Your task to perform on an android device: Open eBay Image 0: 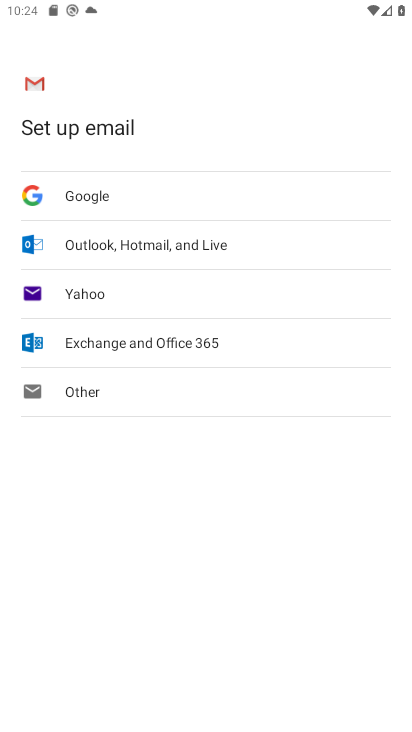
Step 0: press back button
Your task to perform on an android device: Open eBay Image 1: 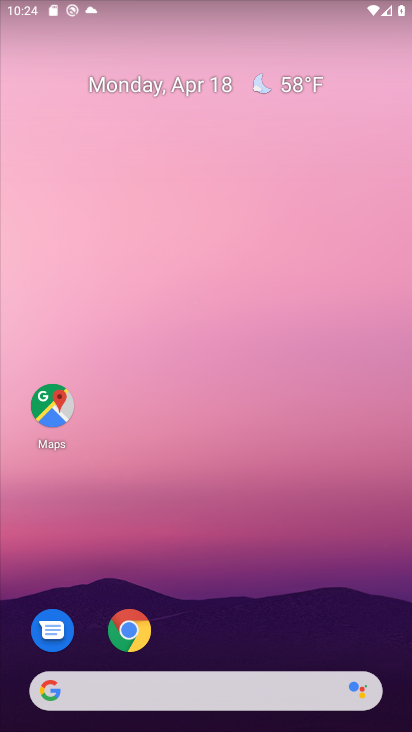
Step 1: click (119, 626)
Your task to perform on an android device: Open eBay Image 2: 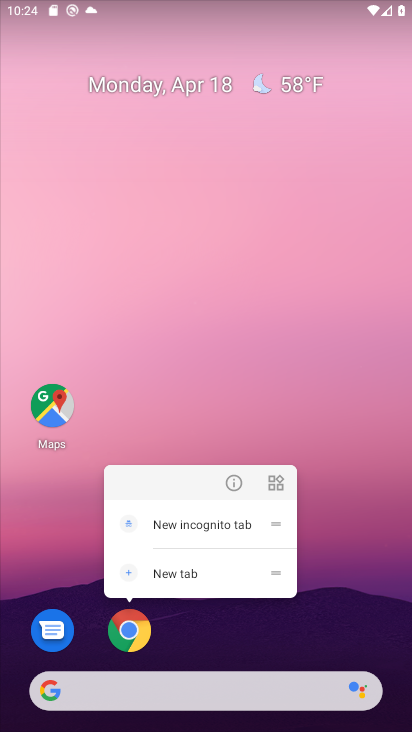
Step 2: click (121, 624)
Your task to perform on an android device: Open eBay Image 3: 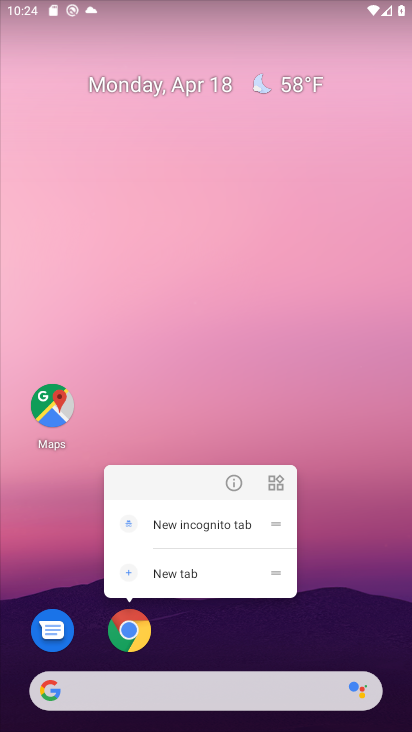
Step 3: click (123, 623)
Your task to perform on an android device: Open eBay Image 4: 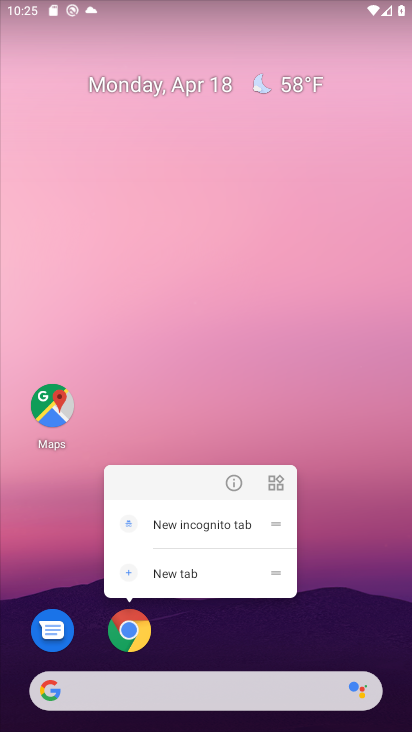
Step 4: click (123, 623)
Your task to perform on an android device: Open eBay Image 5: 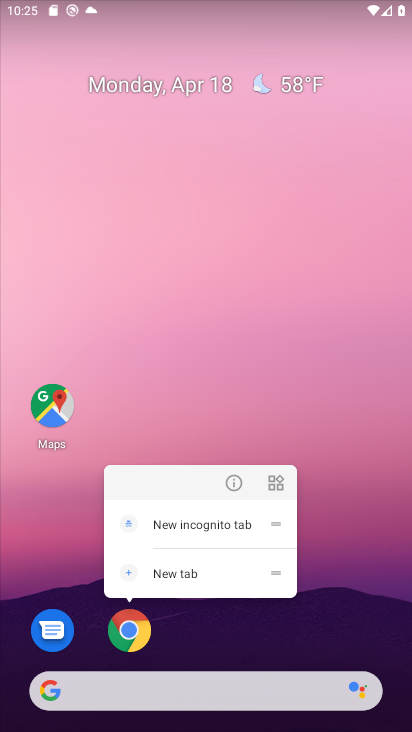
Step 5: click (130, 624)
Your task to perform on an android device: Open eBay Image 6: 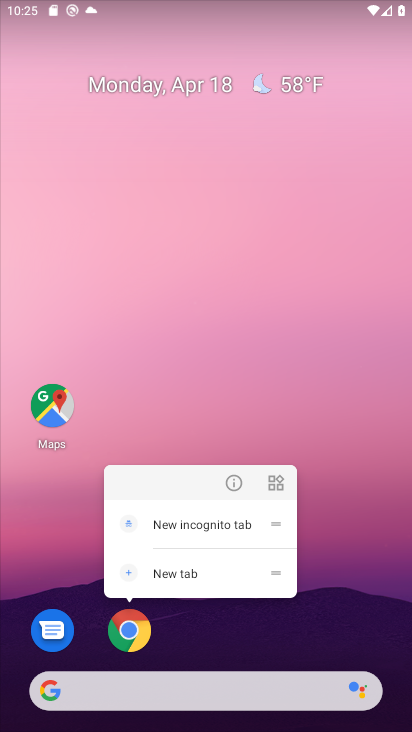
Step 6: click (128, 640)
Your task to perform on an android device: Open eBay Image 7: 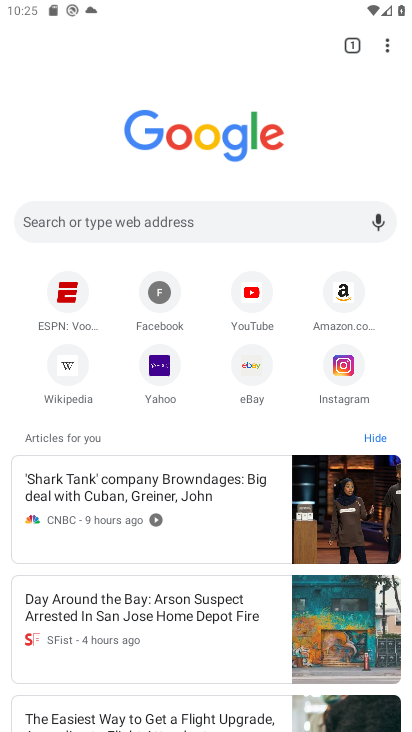
Step 7: click (248, 358)
Your task to perform on an android device: Open eBay Image 8: 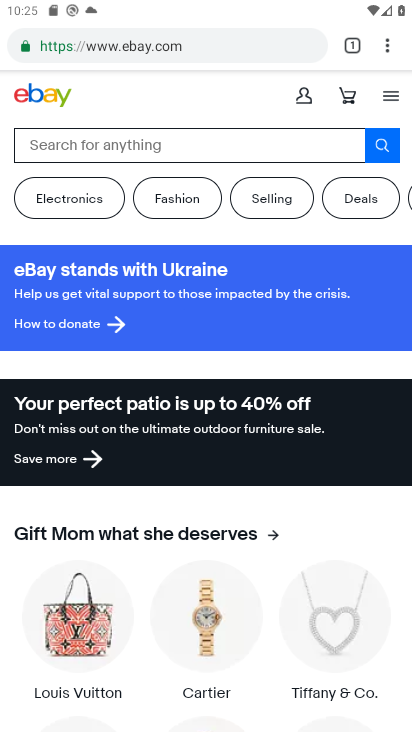
Step 8: task complete